Your task to perform on an android device: Open privacy settings Image 0: 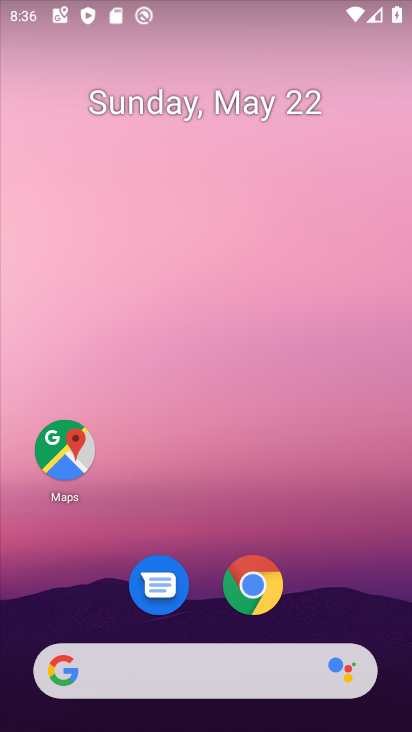
Step 0: drag from (197, 500) to (190, 38)
Your task to perform on an android device: Open privacy settings Image 1: 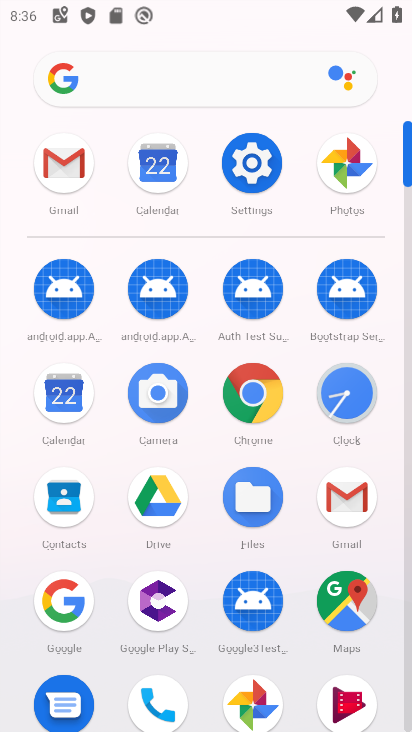
Step 1: click (247, 159)
Your task to perform on an android device: Open privacy settings Image 2: 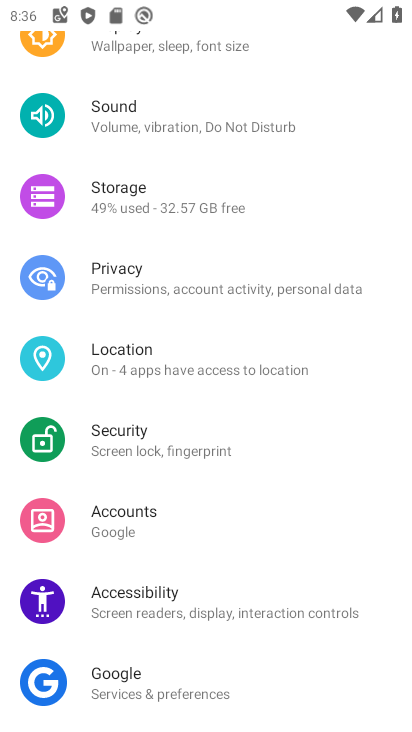
Step 2: click (229, 271)
Your task to perform on an android device: Open privacy settings Image 3: 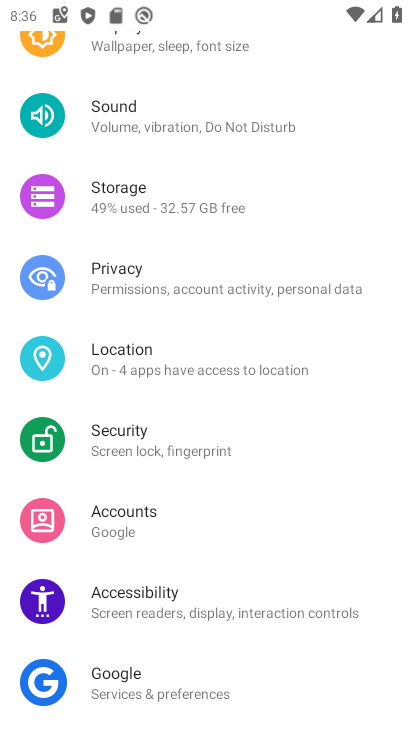
Step 3: click (225, 275)
Your task to perform on an android device: Open privacy settings Image 4: 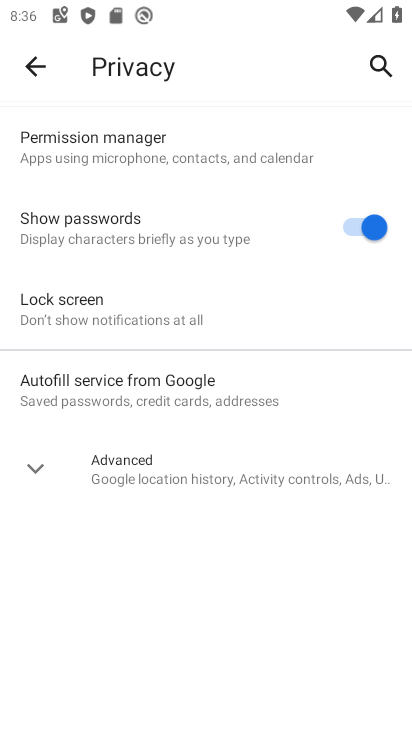
Step 4: task complete